Your task to perform on an android device: turn on improve location accuracy Image 0: 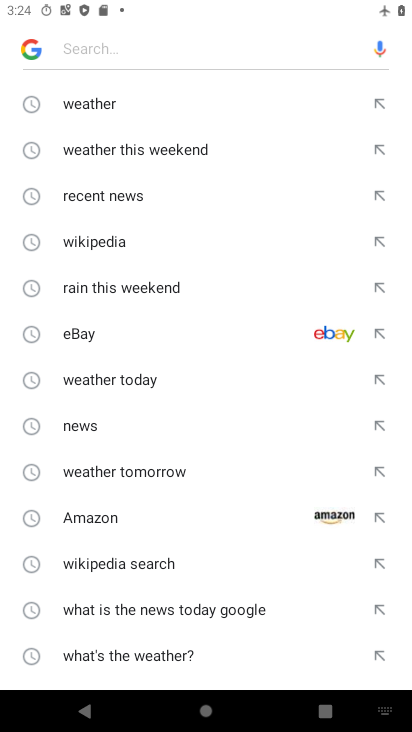
Step 0: press home button
Your task to perform on an android device: turn on improve location accuracy Image 1: 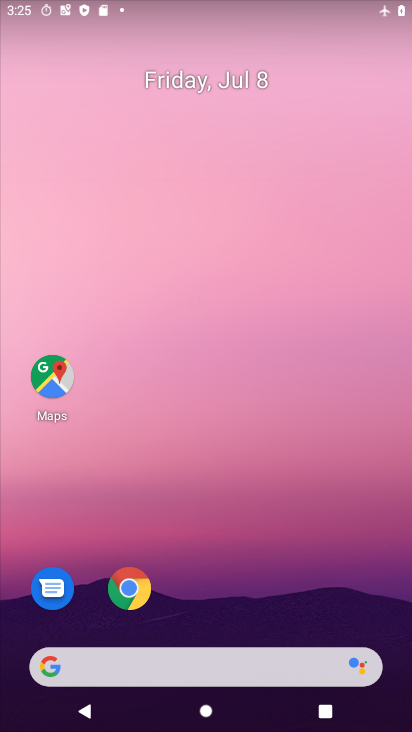
Step 1: drag from (246, 588) to (243, 143)
Your task to perform on an android device: turn on improve location accuracy Image 2: 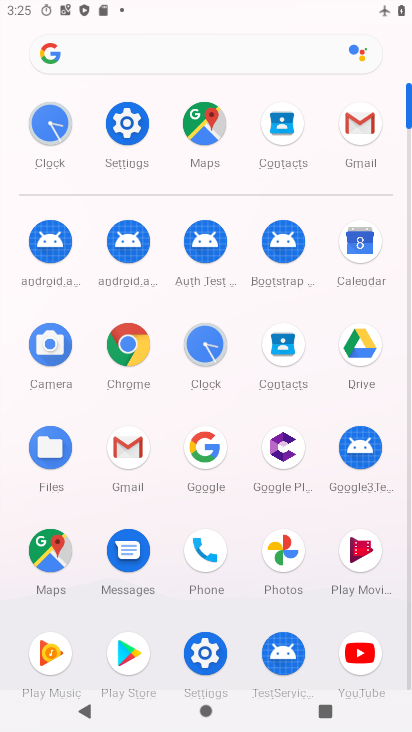
Step 2: click (130, 131)
Your task to perform on an android device: turn on improve location accuracy Image 3: 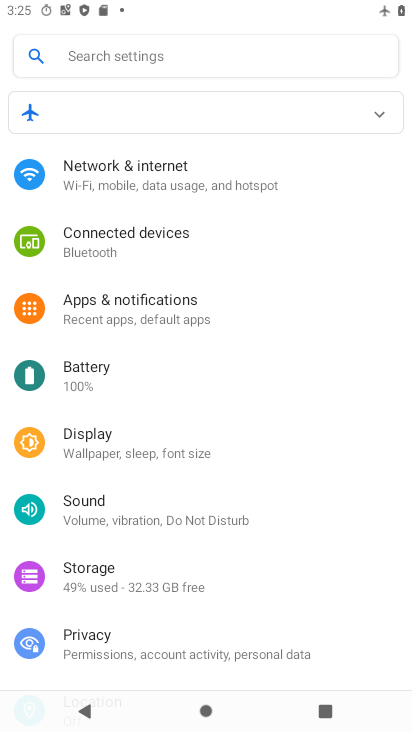
Step 3: drag from (280, 594) to (273, 200)
Your task to perform on an android device: turn on improve location accuracy Image 4: 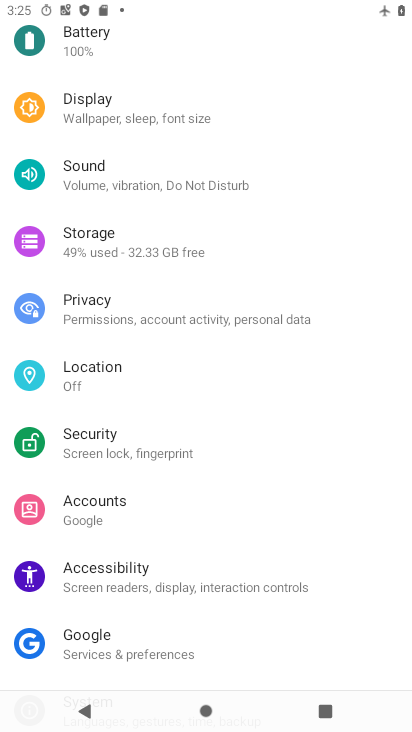
Step 4: click (72, 377)
Your task to perform on an android device: turn on improve location accuracy Image 5: 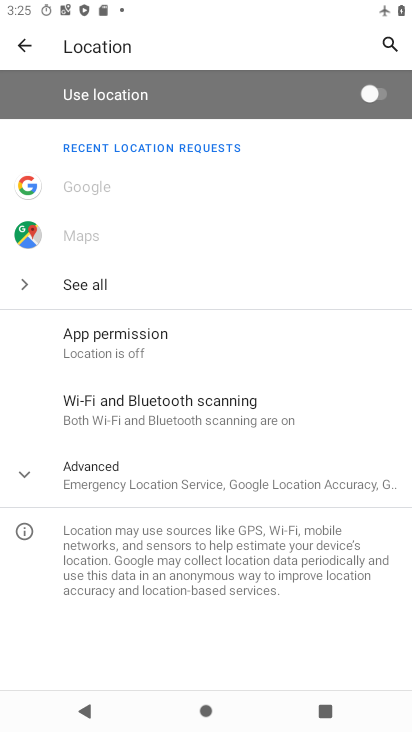
Step 5: click (102, 472)
Your task to perform on an android device: turn on improve location accuracy Image 6: 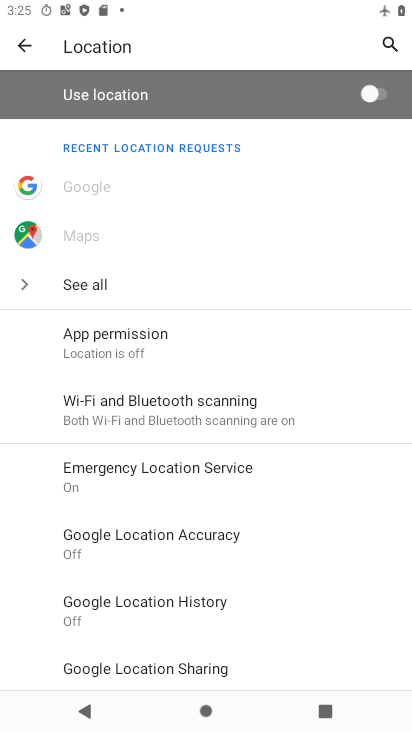
Step 6: click (172, 537)
Your task to perform on an android device: turn on improve location accuracy Image 7: 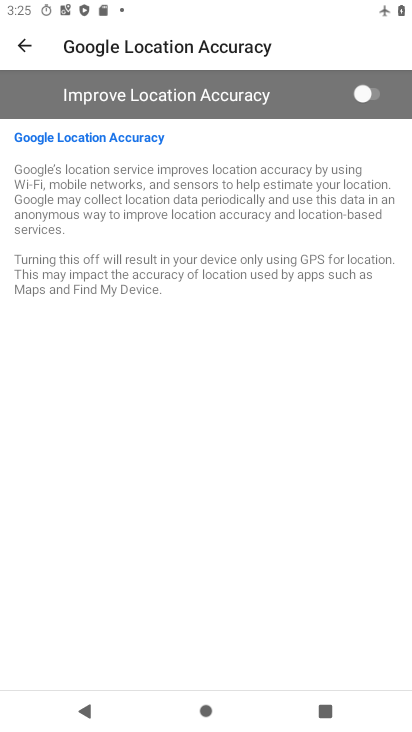
Step 7: click (368, 96)
Your task to perform on an android device: turn on improve location accuracy Image 8: 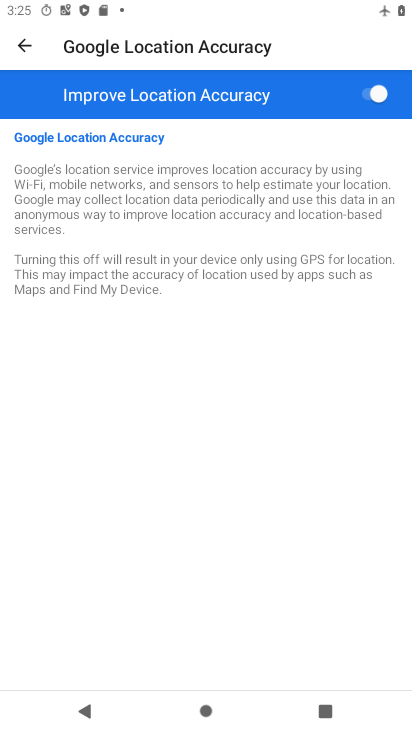
Step 8: task complete